Your task to perform on an android device: toggle data saver in the chrome app Image 0: 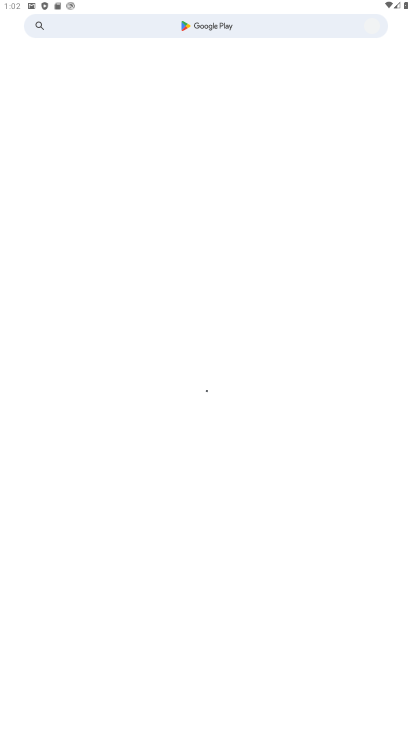
Step 0: press home button
Your task to perform on an android device: toggle data saver in the chrome app Image 1: 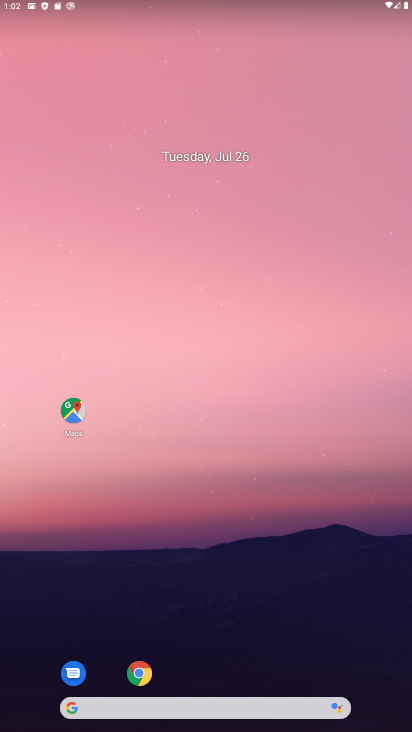
Step 1: click (141, 671)
Your task to perform on an android device: toggle data saver in the chrome app Image 2: 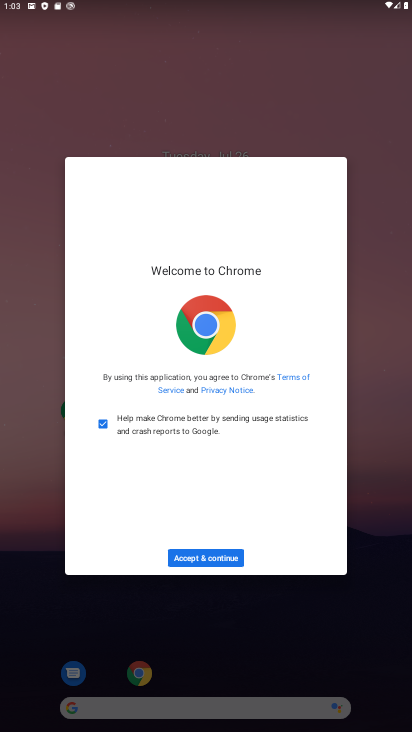
Step 2: click (192, 560)
Your task to perform on an android device: toggle data saver in the chrome app Image 3: 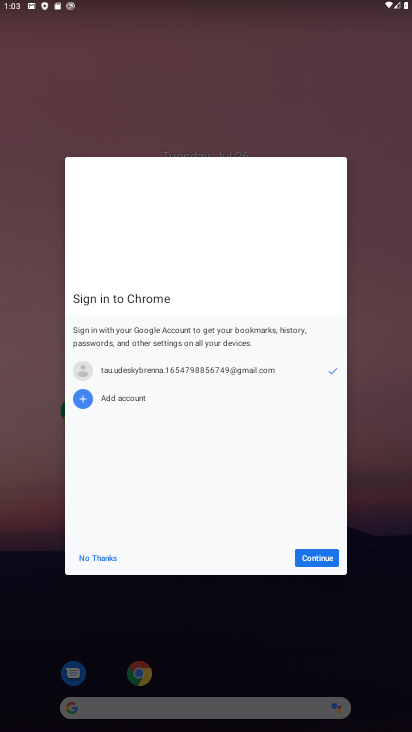
Step 3: click (310, 551)
Your task to perform on an android device: toggle data saver in the chrome app Image 4: 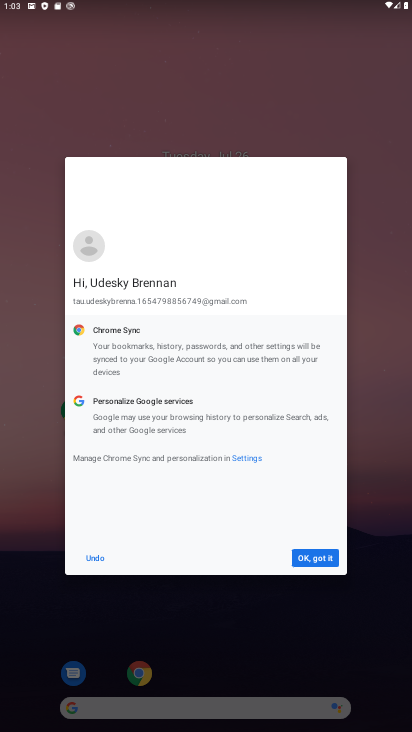
Step 4: click (310, 551)
Your task to perform on an android device: toggle data saver in the chrome app Image 5: 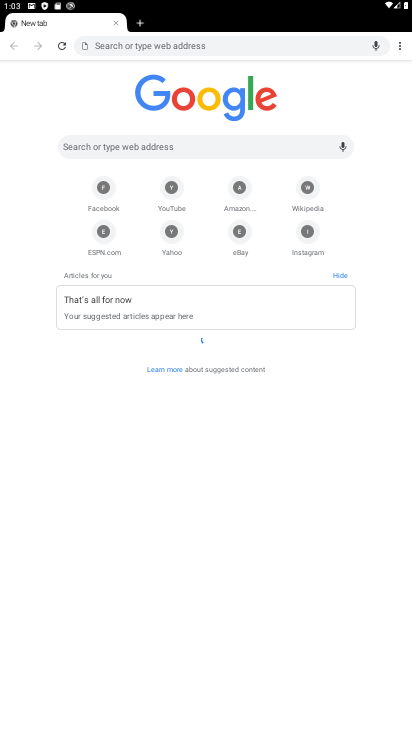
Step 5: click (395, 47)
Your task to perform on an android device: toggle data saver in the chrome app Image 6: 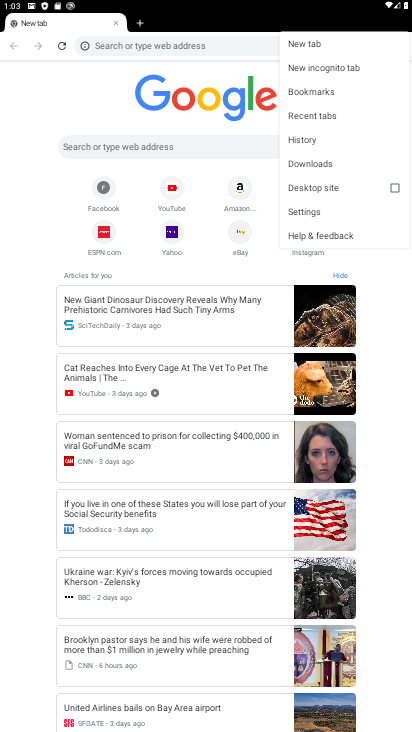
Step 6: click (302, 213)
Your task to perform on an android device: toggle data saver in the chrome app Image 7: 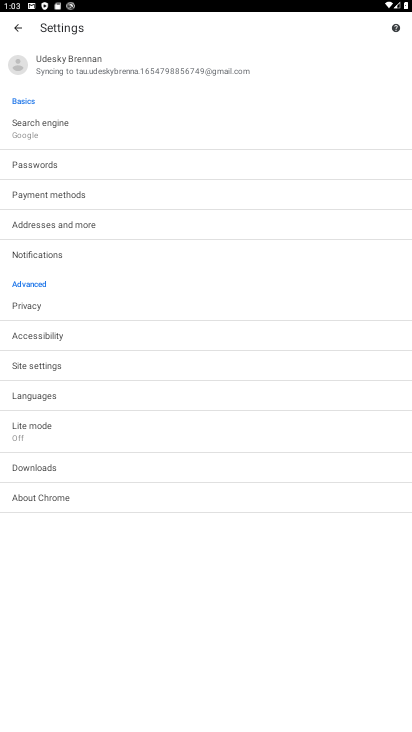
Step 7: click (43, 423)
Your task to perform on an android device: toggle data saver in the chrome app Image 8: 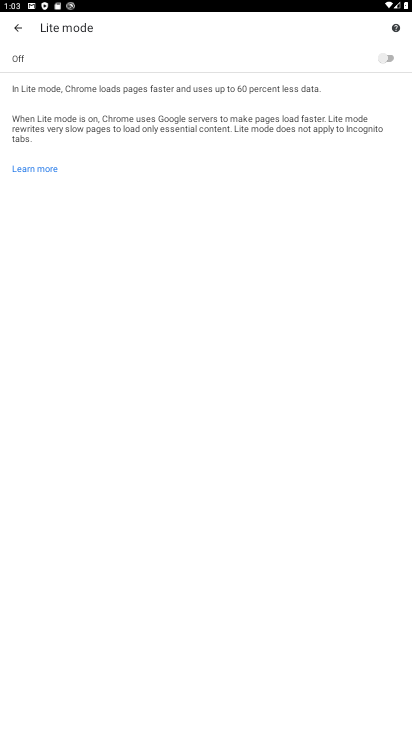
Step 8: click (378, 68)
Your task to perform on an android device: toggle data saver in the chrome app Image 9: 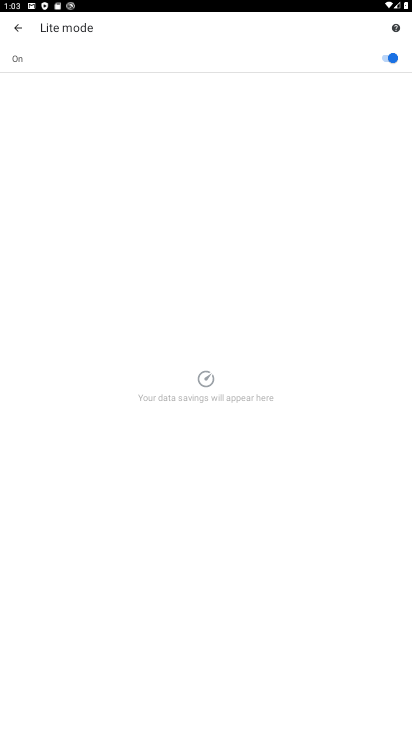
Step 9: task complete